Your task to perform on an android device: set default search engine in the chrome app Image 0: 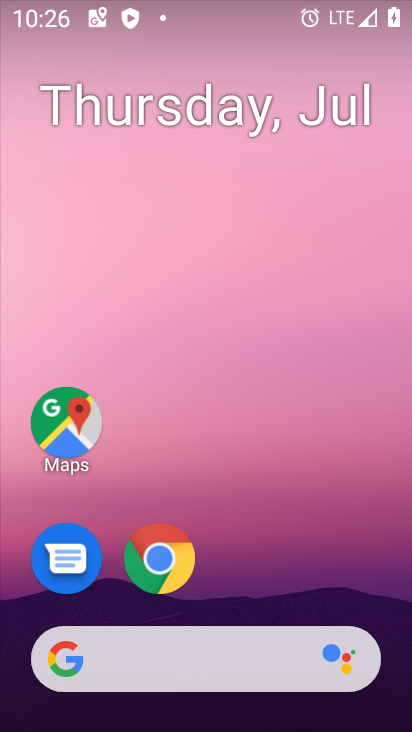
Step 0: drag from (368, 578) to (355, 59)
Your task to perform on an android device: set default search engine in the chrome app Image 1: 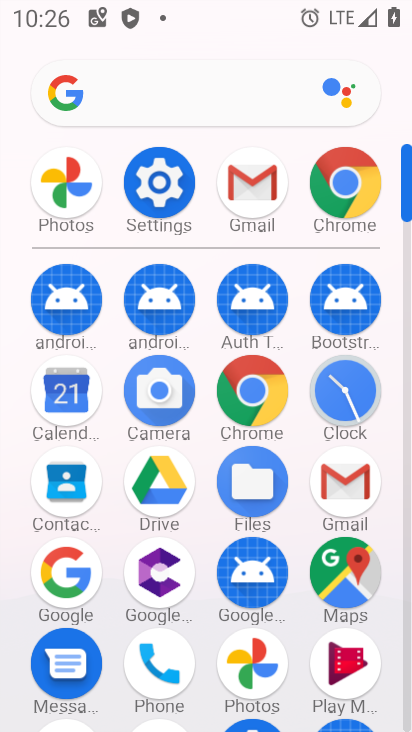
Step 1: click (257, 385)
Your task to perform on an android device: set default search engine in the chrome app Image 2: 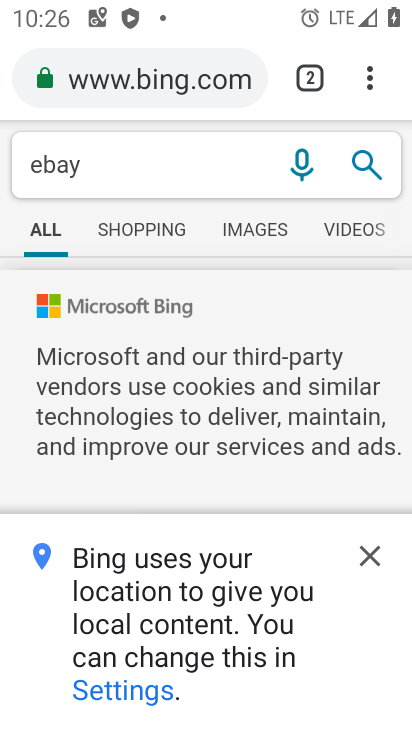
Step 2: click (369, 88)
Your task to perform on an android device: set default search engine in the chrome app Image 3: 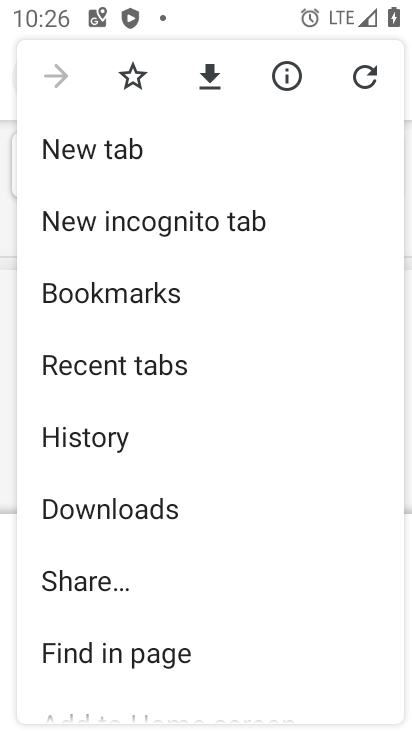
Step 3: drag from (320, 571) to (320, 484)
Your task to perform on an android device: set default search engine in the chrome app Image 4: 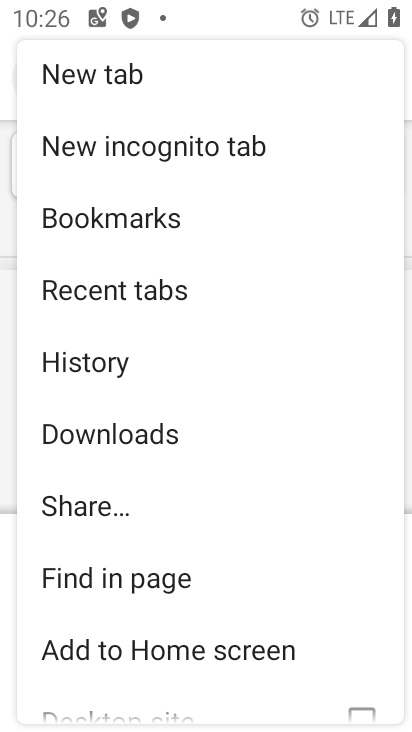
Step 4: drag from (325, 553) to (324, 437)
Your task to perform on an android device: set default search engine in the chrome app Image 5: 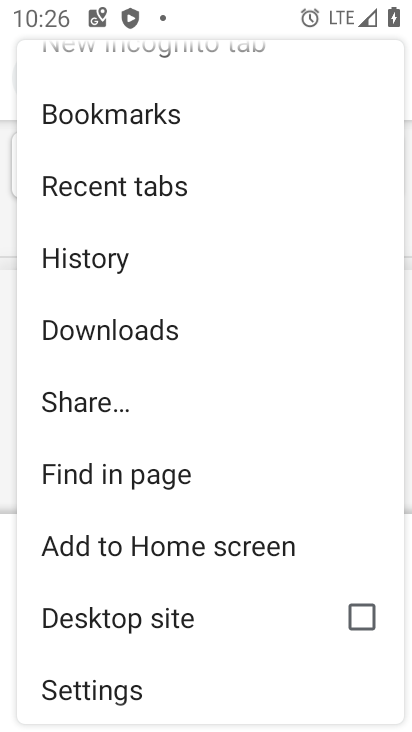
Step 5: drag from (297, 609) to (312, 463)
Your task to perform on an android device: set default search engine in the chrome app Image 6: 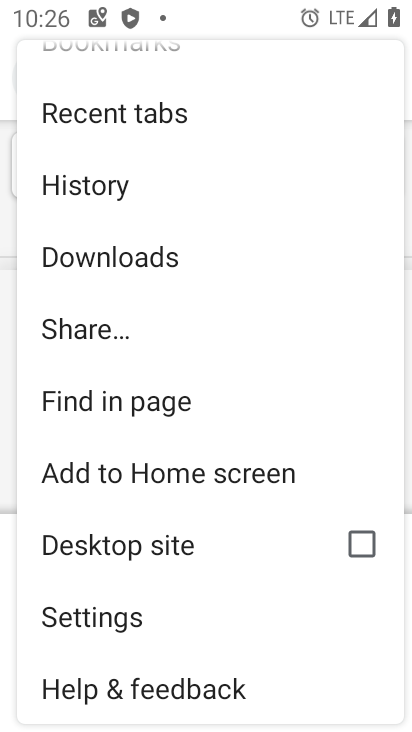
Step 6: click (200, 622)
Your task to perform on an android device: set default search engine in the chrome app Image 7: 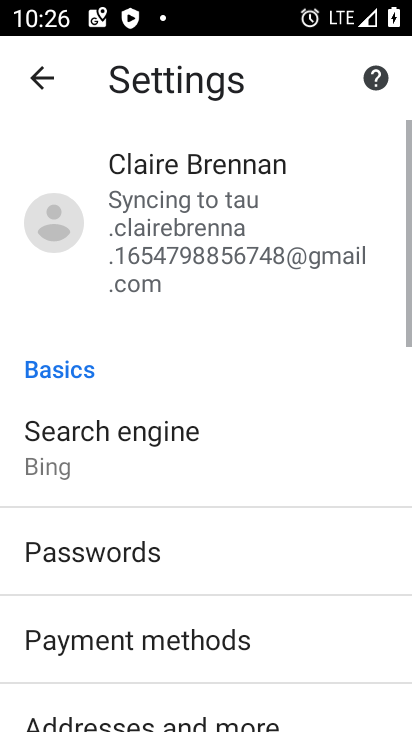
Step 7: drag from (302, 599) to (314, 508)
Your task to perform on an android device: set default search engine in the chrome app Image 8: 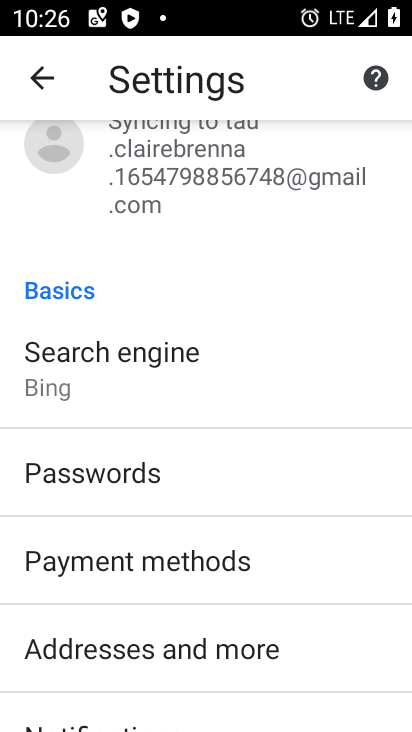
Step 8: drag from (315, 595) to (317, 514)
Your task to perform on an android device: set default search engine in the chrome app Image 9: 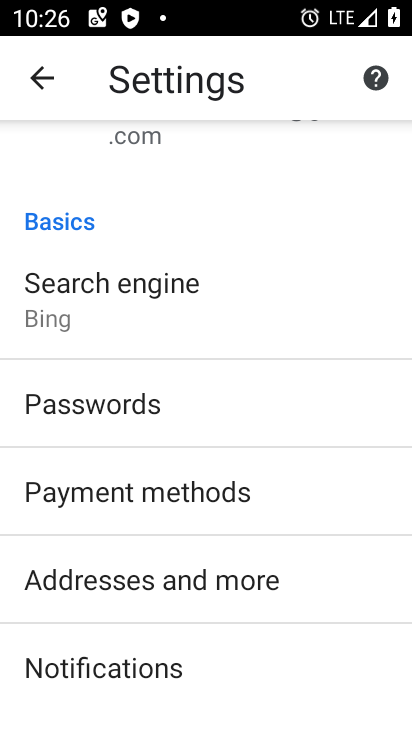
Step 9: drag from (323, 606) to (323, 519)
Your task to perform on an android device: set default search engine in the chrome app Image 10: 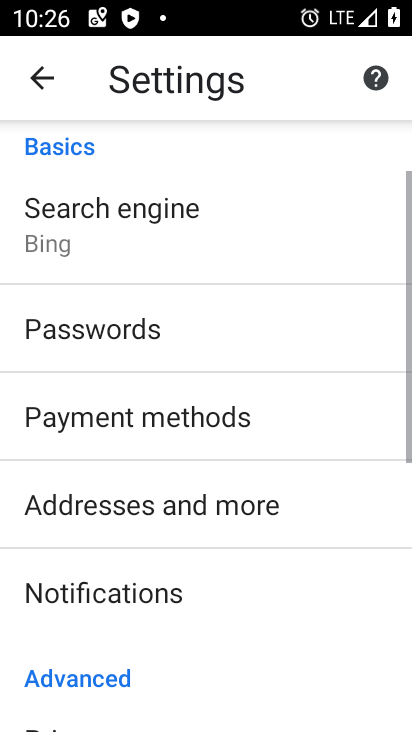
Step 10: drag from (326, 621) to (342, 525)
Your task to perform on an android device: set default search engine in the chrome app Image 11: 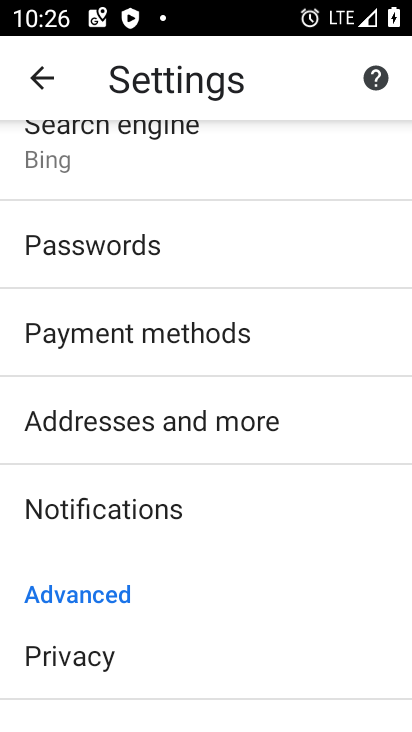
Step 11: drag from (321, 607) to (343, 461)
Your task to perform on an android device: set default search engine in the chrome app Image 12: 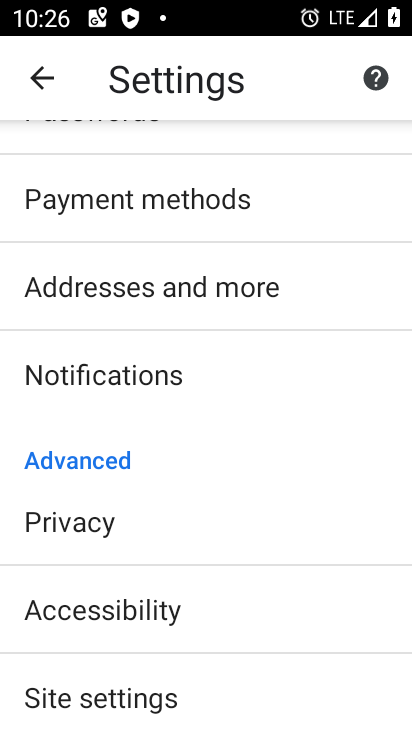
Step 12: drag from (357, 618) to (347, 494)
Your task to perform on an android device: set default search engine in the chrome app Image 13: 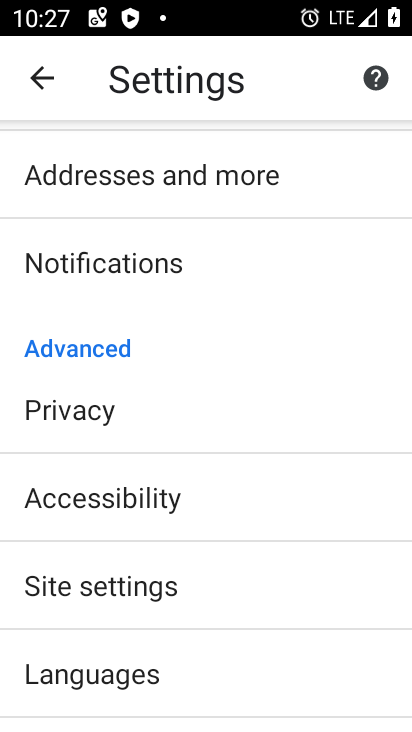
Step 13: drag from (332, 602) to (344, 430)
Your task to perform on an android device: set default search engine in the chrome app Image 14: 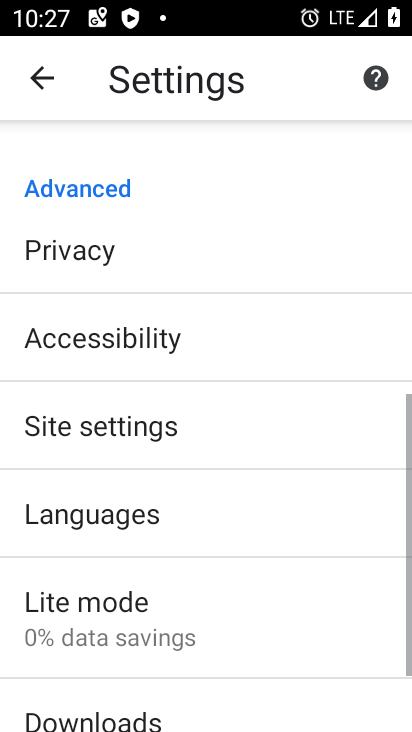
Step 14: drag from (360, 358) to (365, 470)
Your task to perform on an android device: set default search engine in the chrome app Image 15: 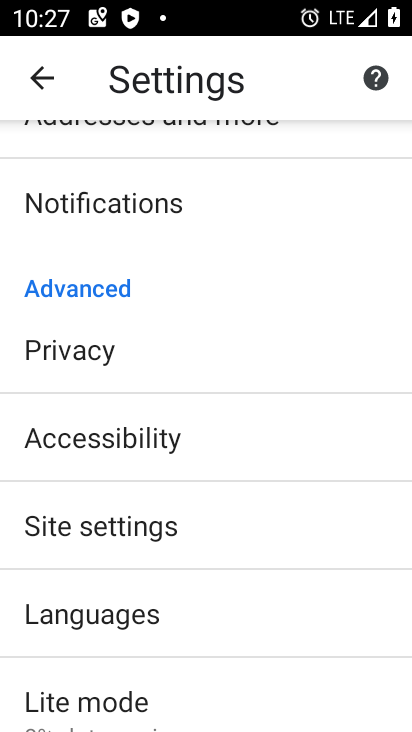
Step 15: drag from (355, 337) to (362, 466)
Your task to perform on an android device: set default search engine in the chrome app Image 16: 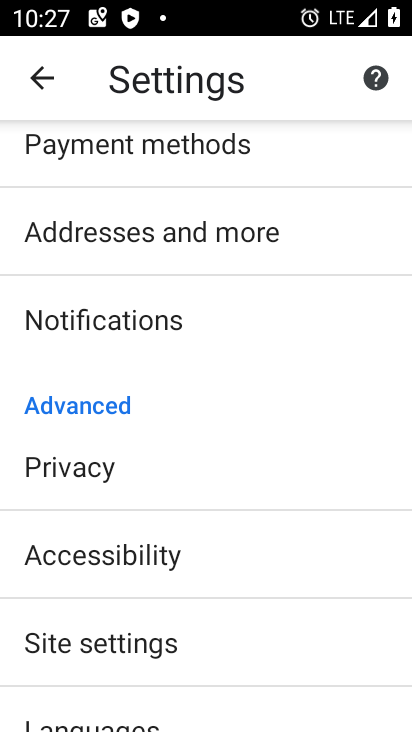
Step 16: drag from (338, 319) to (336, 449)
Your task to perform on an android device: set default search engine in the chrome app Image 17: 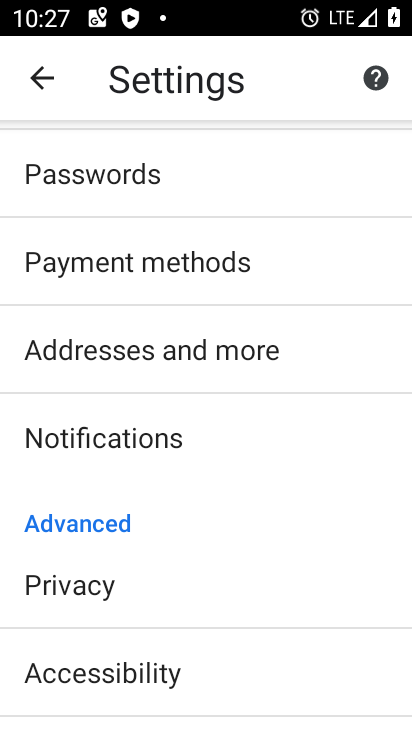
Step 17: drag from (329, 276) to (347, 398)
Your task to perform on an android device: set default search engine in the chrome app Image 18: 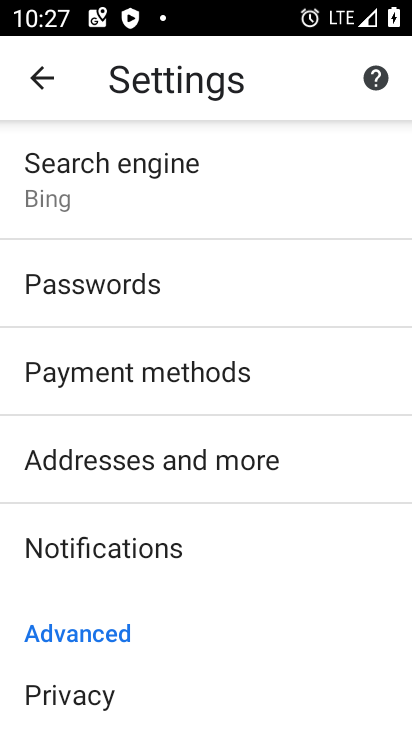
Step 18: drag from (338, 239) to (344, 516)
Your task to perform on an android device: set default search engine in the chrome app Image 19: 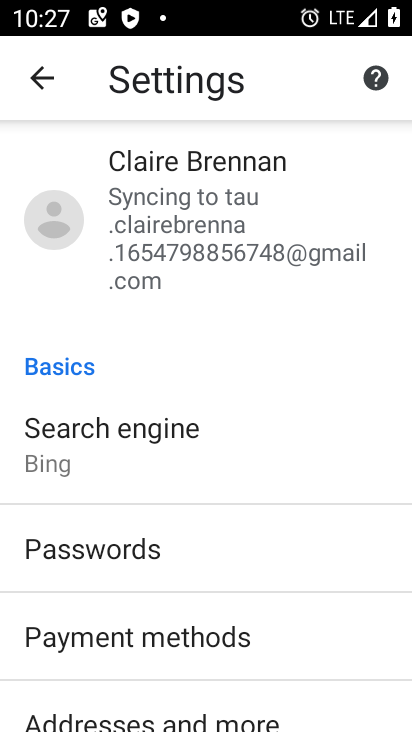
Step 19: click (204, 456)
Your task to perform on an android device: set default search engine in the chrome app Image 20: 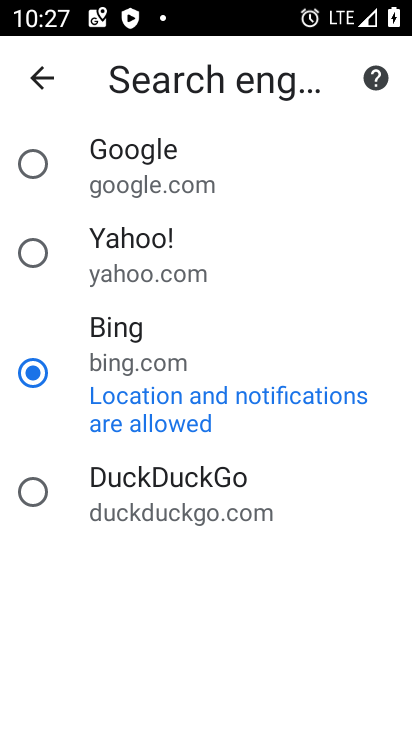
Step 20: click (45, 176)
Your task to perform on an android device: set default search engine in the chrome app Image 21: 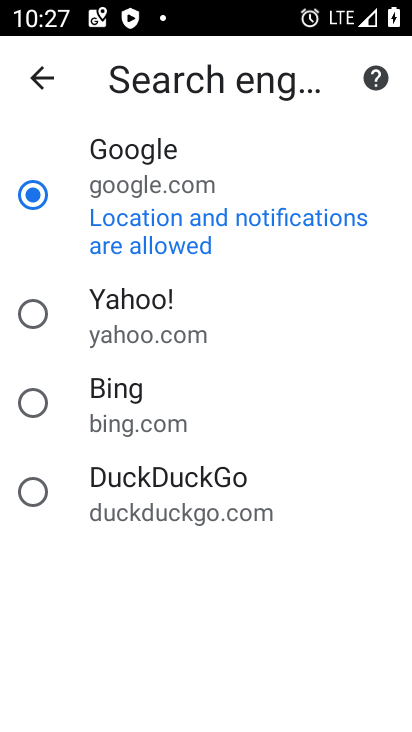
Step 21: task complete